Your task to perform on an android device: Open my contact list Image 0: 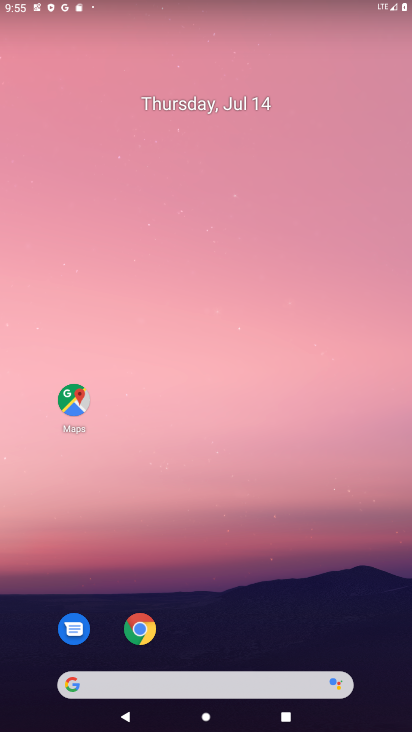
Step 0: drag from (39, 543) to (272, 99)
Your task to perform on an android device: Open my contact list Image 1: 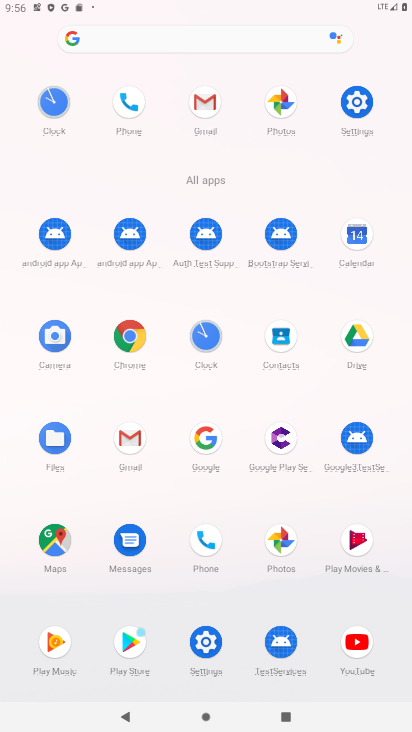
Step 1: click (139, 105)
Your task to perform on an android device: Open my contact list Image 2: 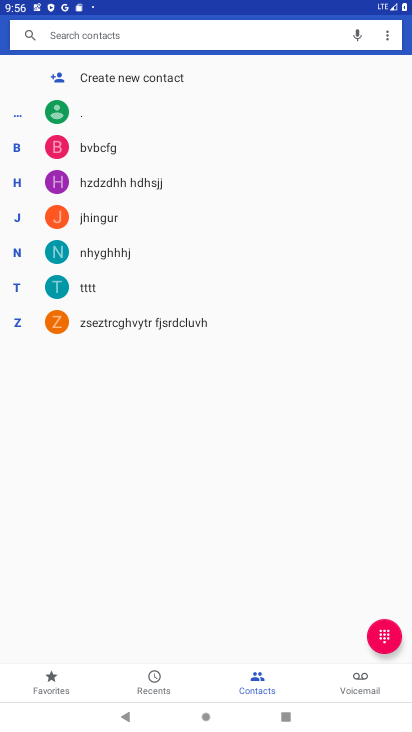
Step 2: task complete